Your task to perform on an android device: turn on airplane mode Image 0: 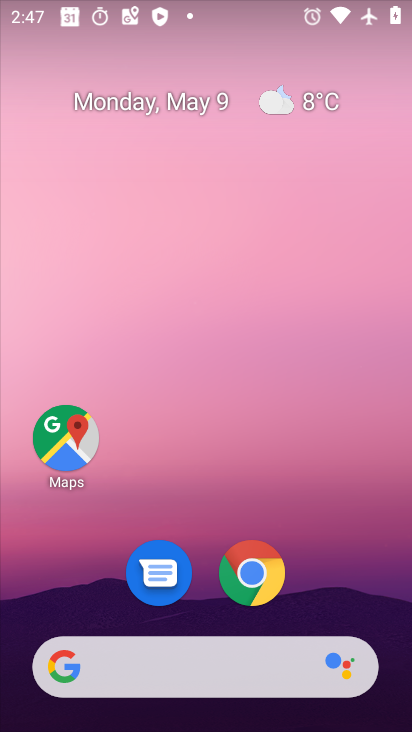
Step 0: drag from (186, 652) to (350, 36)
Your task to perform on an android device: turn on airplane mode Image 1: 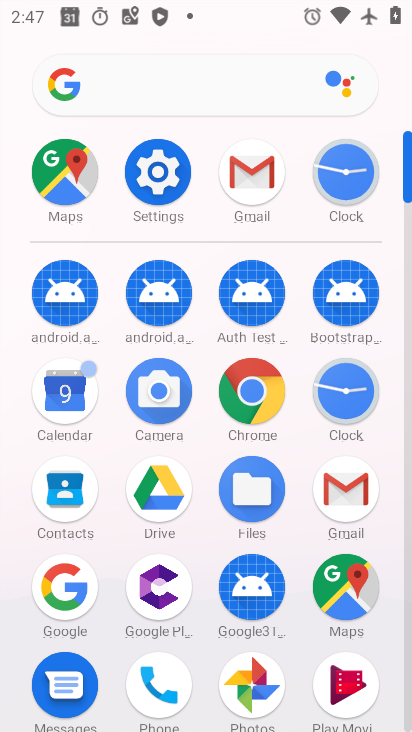
Step 1: click (159, 174)
Your task to perform on an android device: turn on airplane mode Image 2: 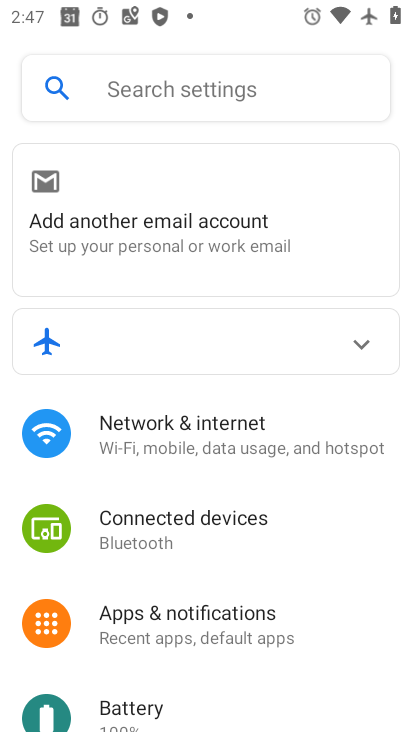
Step 2: click (209, 449)
Your task to perform on an android device: turn on airplane mode Image 3: 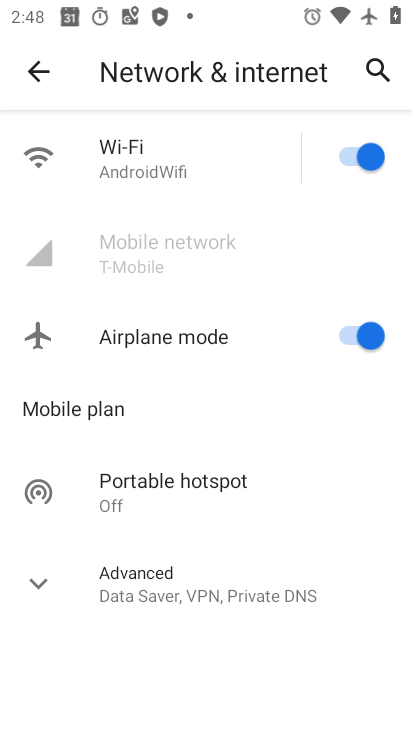
Step 3: task complete